Your task to perform on an android device: Open the stopwatch Image 0: 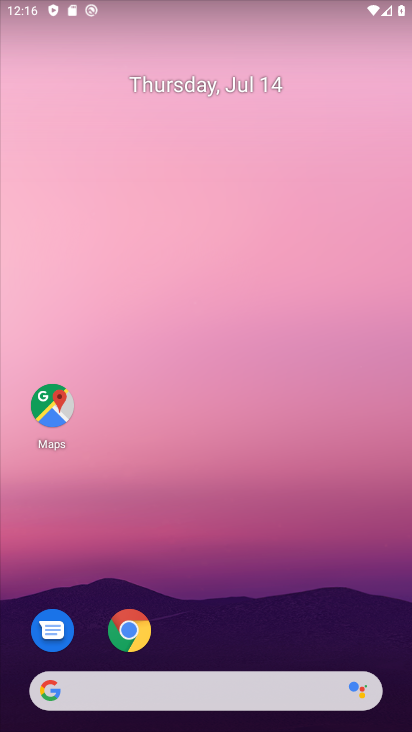
Step 0: drag from (279, 663) to (285, 246)
Your task to perform on an android device: Open the stopwatch Image 1: 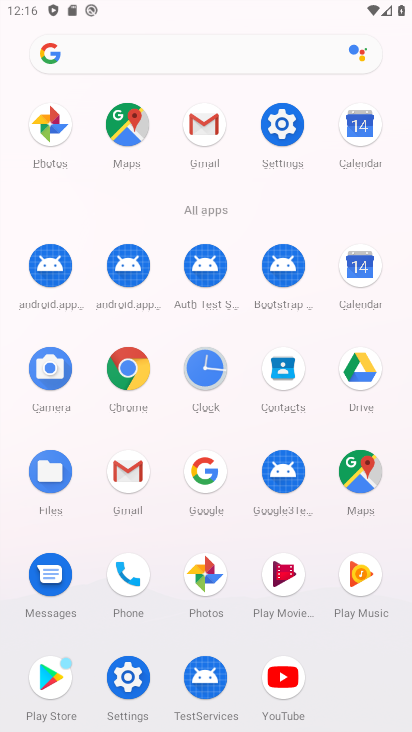
Step 1: click (203, 379)
Your task to perform on an android device: Open the stopwatch Image 2: 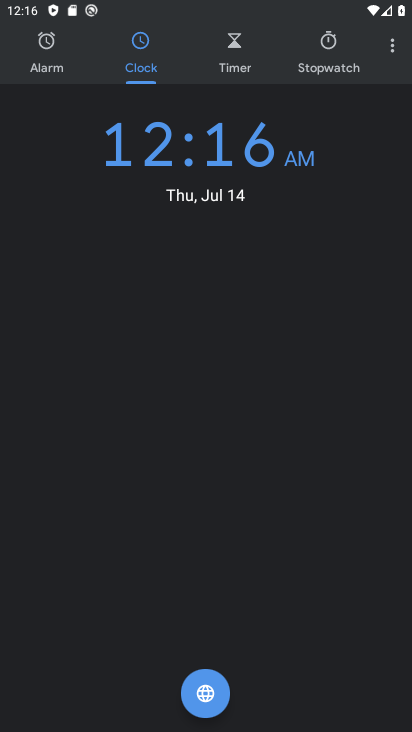
Step 2: click (316, 58)
Your task to perform on an android device: Open the stopwatch Image 3: 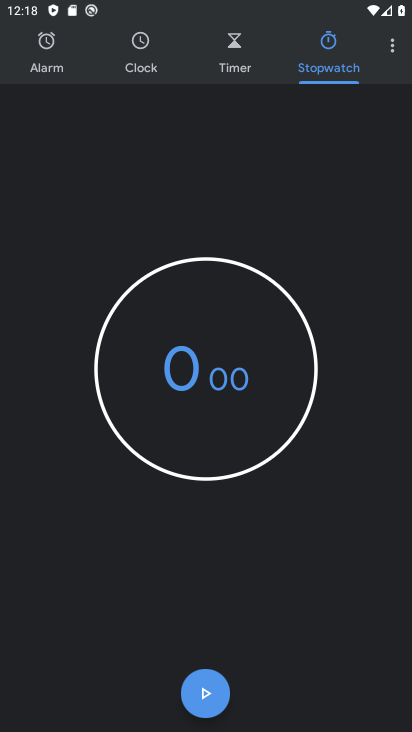
Step 3: task complete